Your task to perform on an android device: Go to settings Image 0: 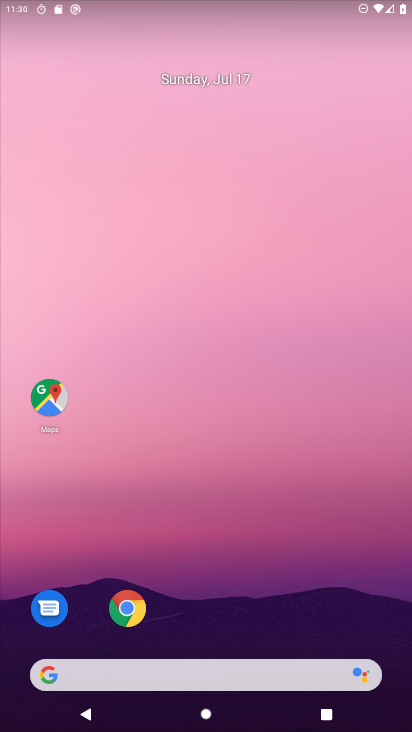
Step 0: drag from (294, 494) to (261, 140)
Your task to perform on an android device: Go to settings Image 1: 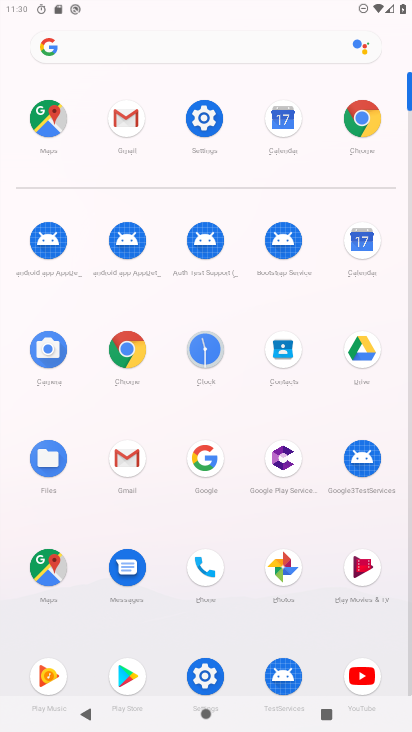
Step 1: click (199, 132)
Your task to perform on an android device: Go to settings Image 2: 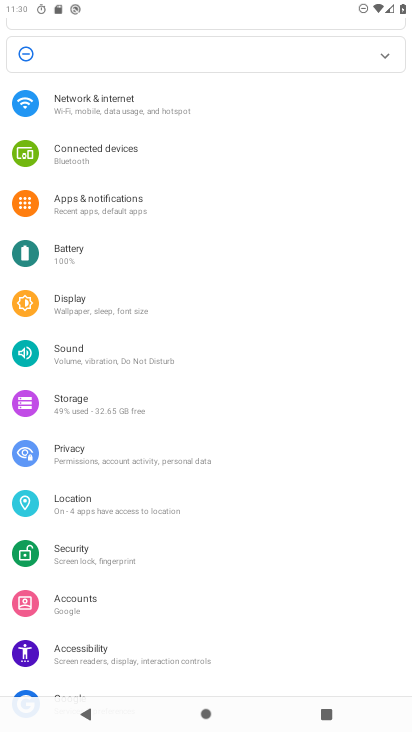
Step 2: task complete